Your task to perform on an android device: allow notifications from all sites in the chrome app Image 0: 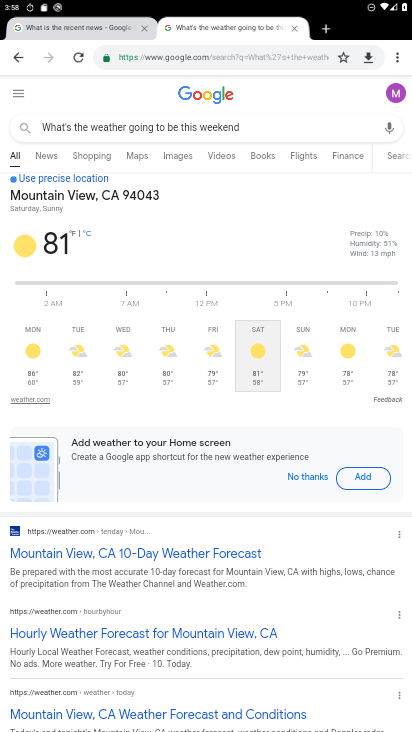
Step 0: click (402, 48)
Your task to perform on an android device: allow notifications from all sites in the chrome app Image 1: 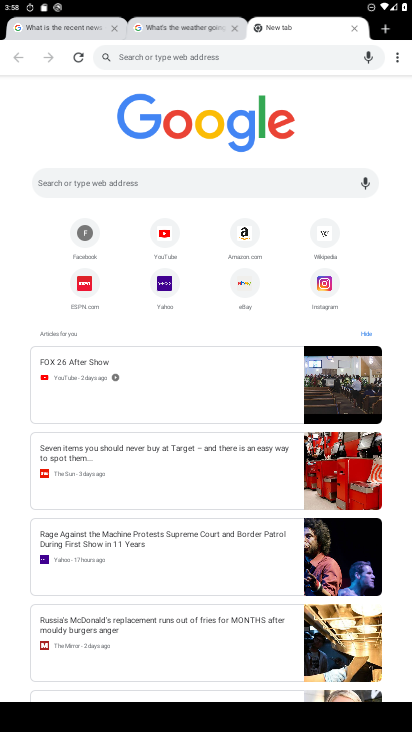
Step 1: click (393, 60)
Your task to perform on an android device: allow notifications from all sites in the chrome app Image 2: 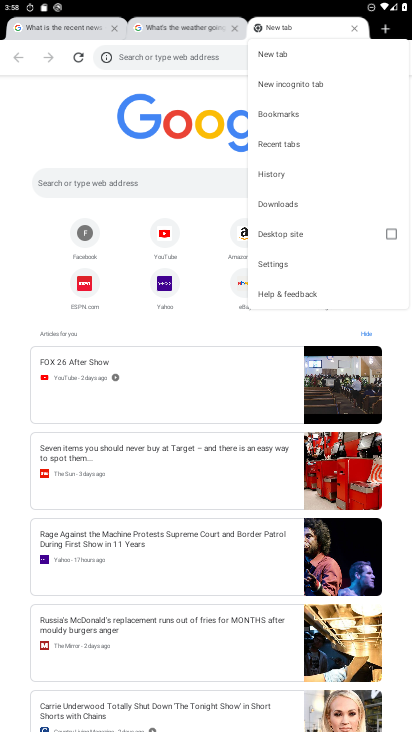
Step 2: click (279, 253)
Your task to perform on an android device: allow notifications from all sites in the chrome app Image 3: 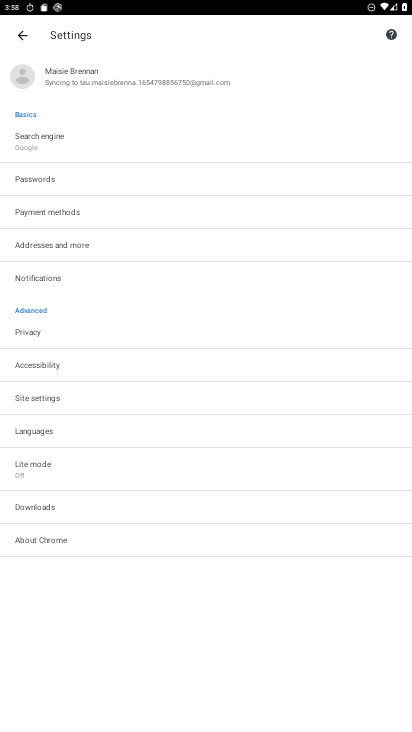
Step 3: click (120, 395)
Your task to perform on an android device: allow notifications from all sites in the chrome app Image 4: 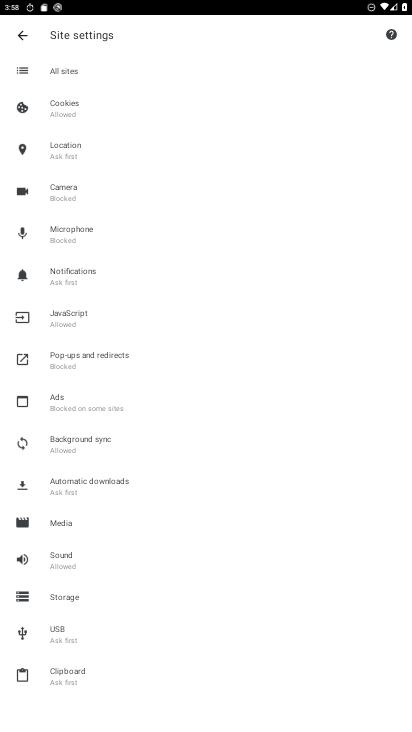
Step 4: click (74, 88)
Your task to perform on an android device: allow notifications from all sites in the chrome app Image 5: 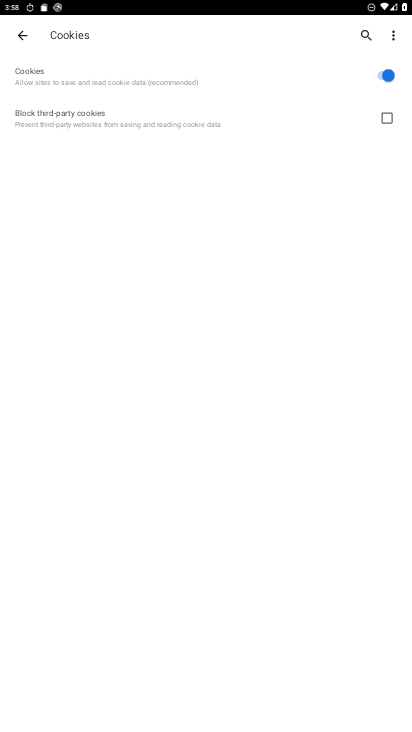
Step 5: click (22, 29)
Your task to perform on an android device: allow notifications from all sites in the chrome app Image 6: 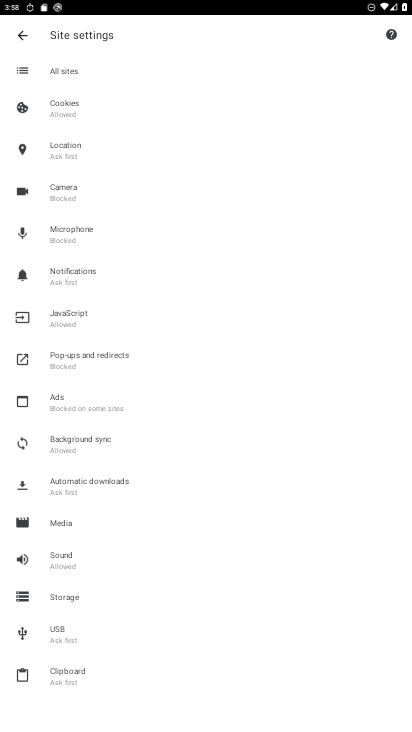
Step 6: click (65, 197)
Your task to perform on an android device: allow notifications from all sites in the chrome app Image 7: 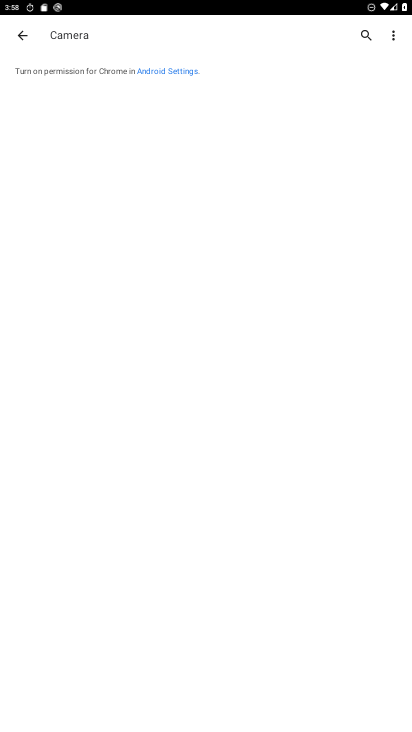
Step 7: click (26, 38)
Your task to perform on an android device: allow notifications from all sites in the chrome app Image 8: 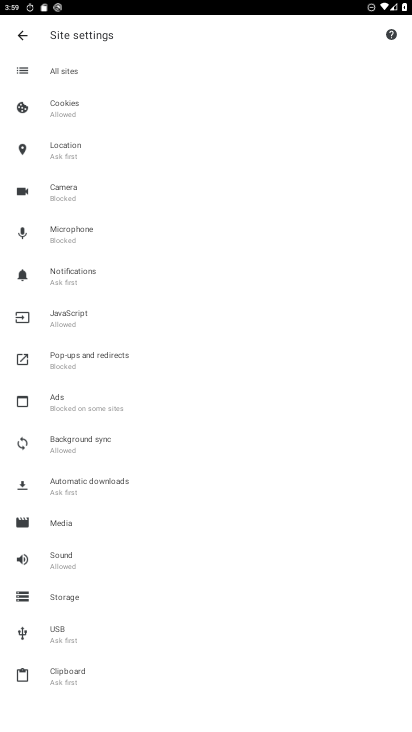
Step 8: click (118, 220)
Your task to perform on an android device: allow notifications from all sites in the chrome app Image 9: 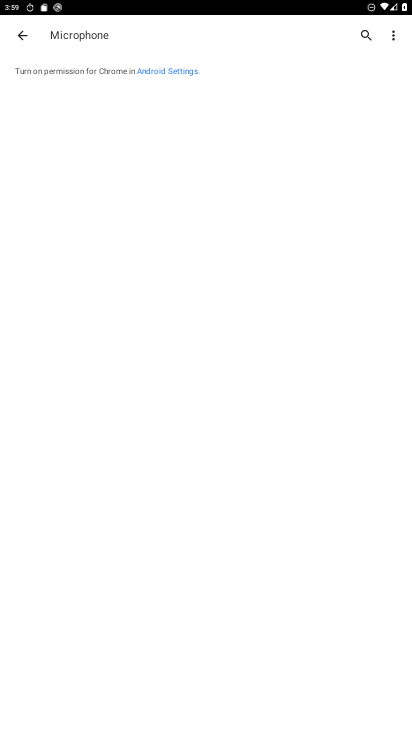
Step 9: click (28, 27)
Your task to perform on an android device: allow notifications from all sites in the chrome app Image 10: 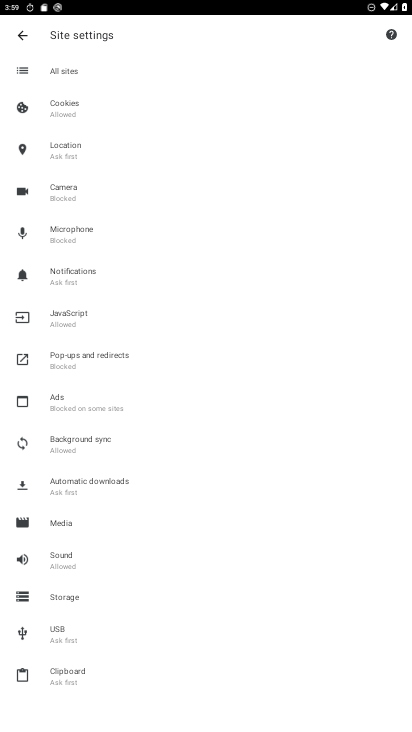
Step 10: task complete